Your task to perform on an android device: Show me popular games on the Play Store Image 0: 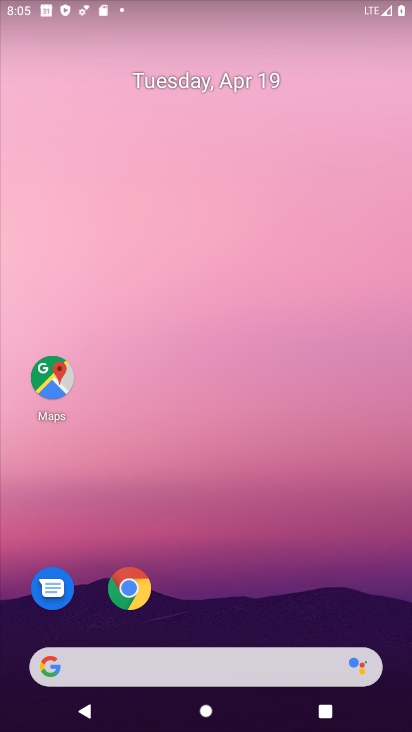
Step 0: drag from (213, 728) to (204, 8)
Your task to perform on an android device: Show me popular games on the Play Store Image 1: 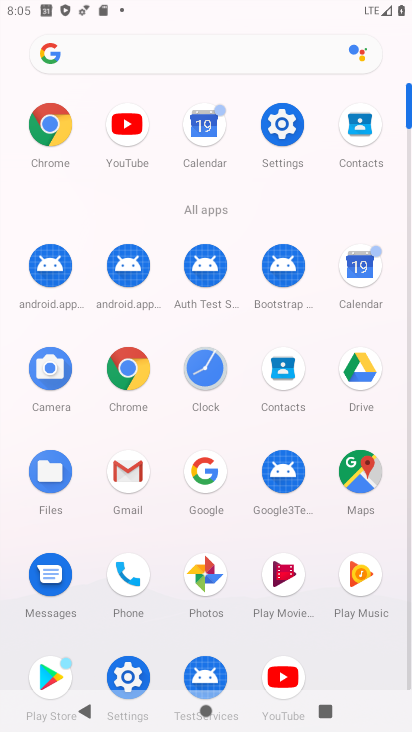
Step 1: click (43, 675)
Your task to perform on an android device: Show me popular games on the Play Store Image 2: 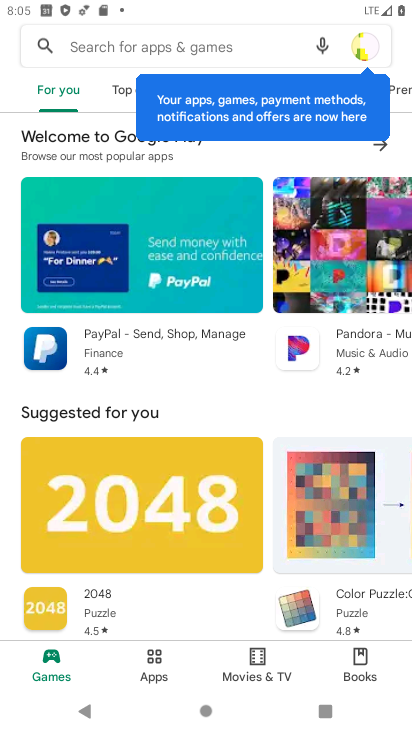
Step 2: drag from (191, 588) to (175, 181)
Your task to perform on an android device: Show me popular games on the Play Store Image 3: 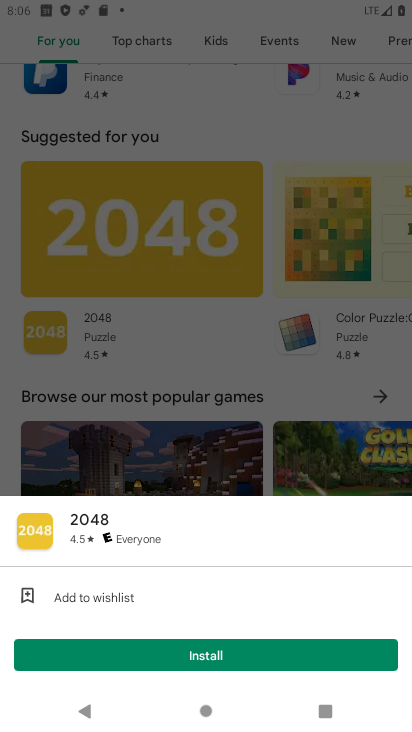
Step 3: click (383, 396)
Your task to perform on an android device: Show me popular games on the Play Store Image 4: 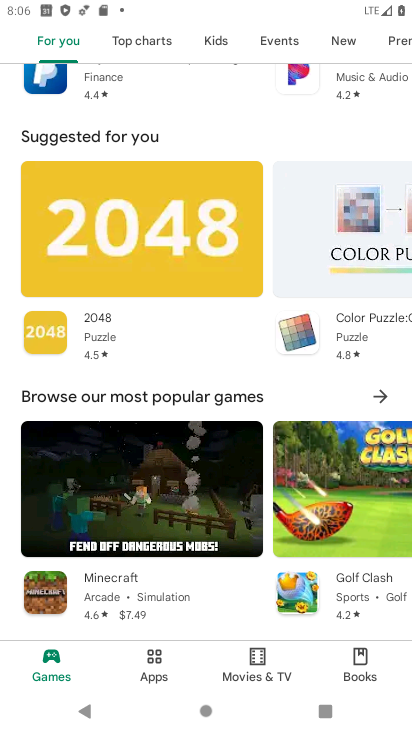
Step 4: click (380, 394)
Your task to perform on an android device: Show me popular games on the Play Store Image 5: 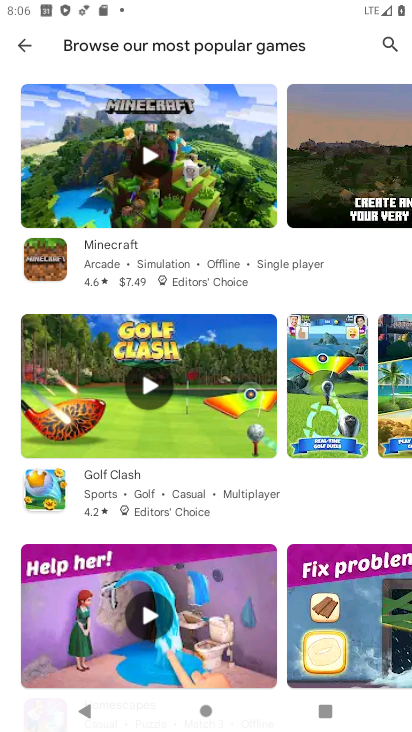
Step 5: task complete